Your task to perform on an android device: How do I get to the nearest Lowe's? Image 0: 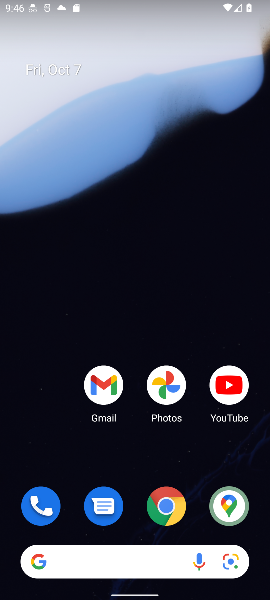
Step 0: click (240, 412)
Your task to perform on an android device: How do I get to the nearest Lowe's? Image 1: 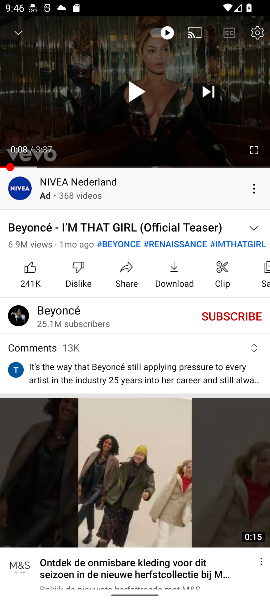
Step 1: press home button
Your task to perform on an android device: How do I get to the nearest Lowe's? Image 2: 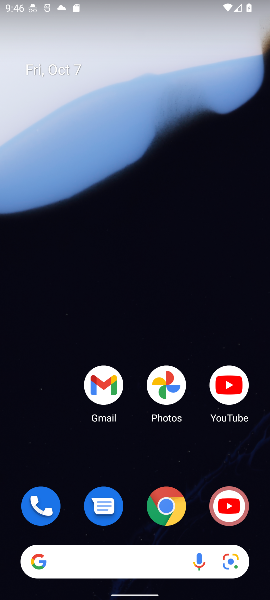
Step 2: click (164, 507)
Your task to perform on an android device: How do I get to the nearest Lowe's? Image 3: 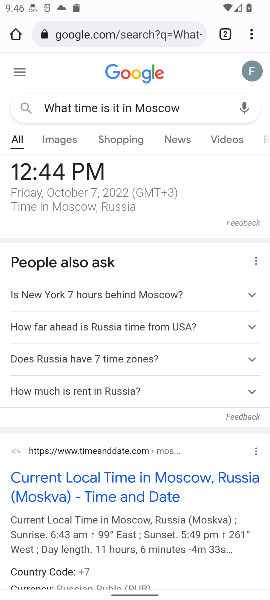
Step 3: click (175, 29)
Your task to perform on an android device: How do I get to the nearest Lowe's? Image 4: 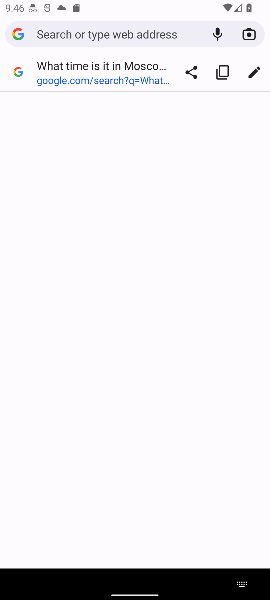
Step 4: type "How do I get to the nearest Lowe's"
Your task to perform on an android device: How do I get to the nearest Lowe's? Image 5: 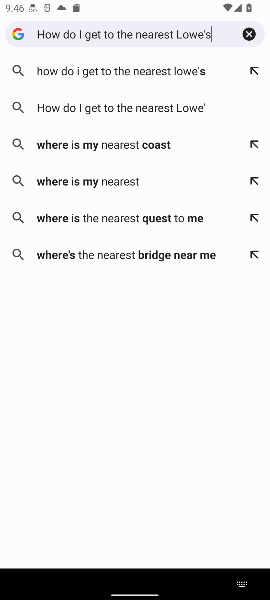
Step 5: press enter
Your task to perform on an android device: How do I get to the nearest Lowe's? Image 6: 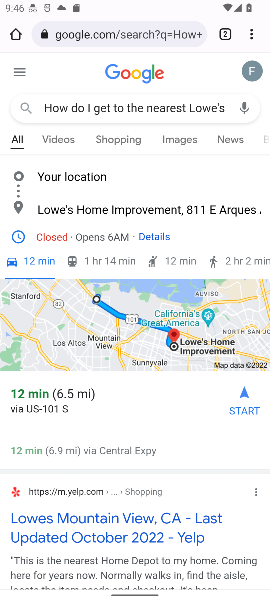
Step 6: task complete